Your task to perform on an android device: Is it going to rain today? Image 0: 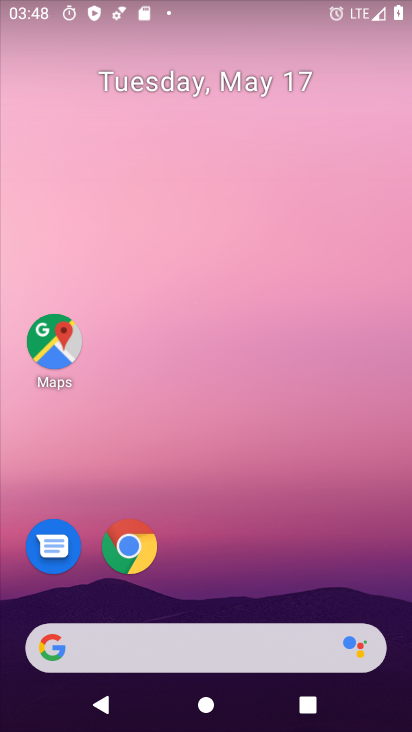
Step 0: press home button
Your task to perform on an android device: Is it going to rain today? Image 1: 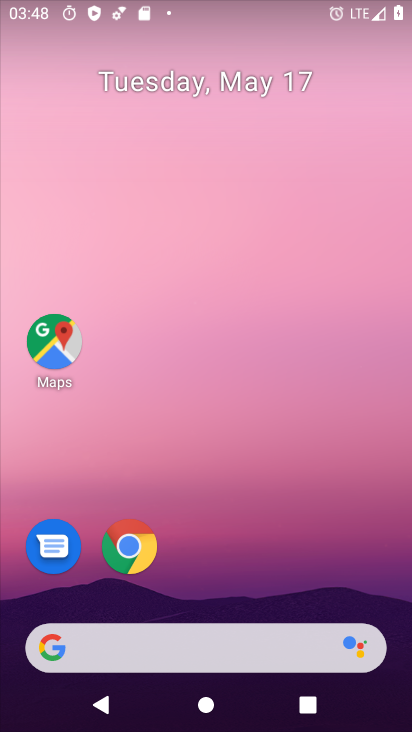
Step 1: click (121, 544)
Your task to perform on an android device: Is it going to rain today? Image 2: 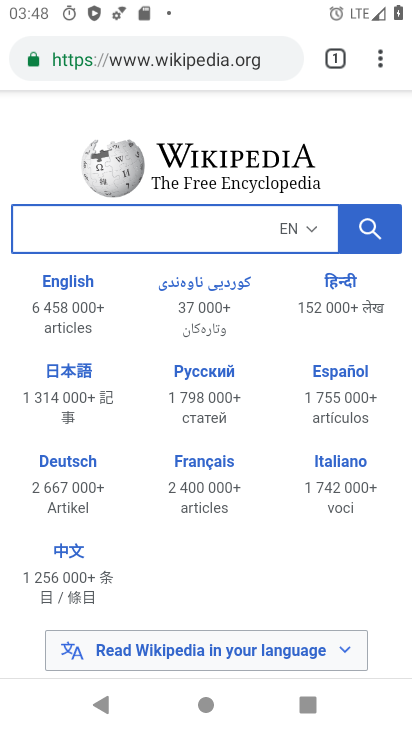
Step 2: click (197, 50)
Your task to perform on an android device: Is it going to rain today? Image 3: 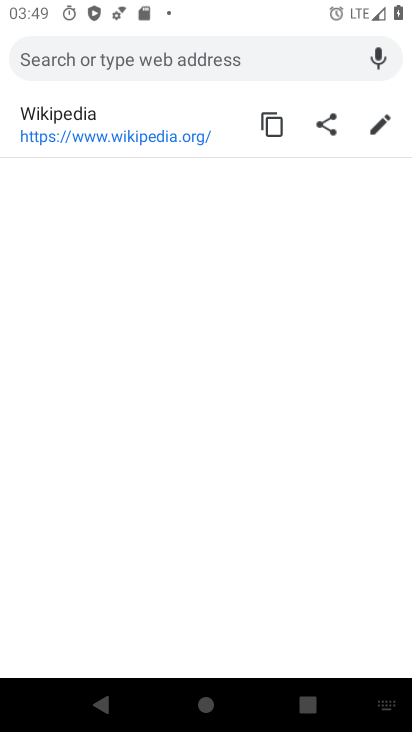
Step 3: type "Is it going to rain today?"
Your task to perform on an android device: Is it going to rain today? Image 4: 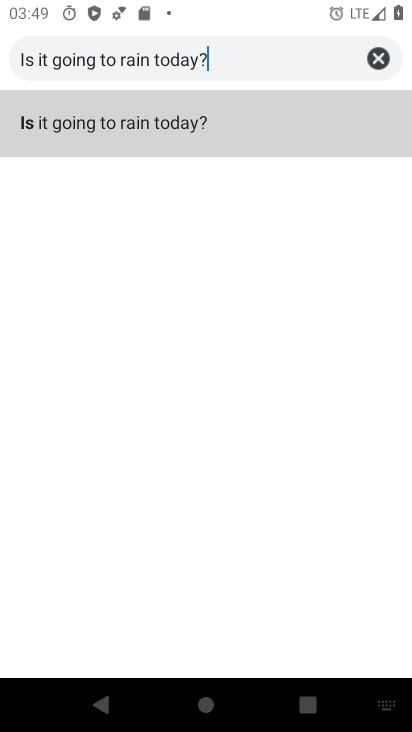
Step 4: click (166, 123)
Your task to perform on an android device: Is it going to rain today? Image 5: 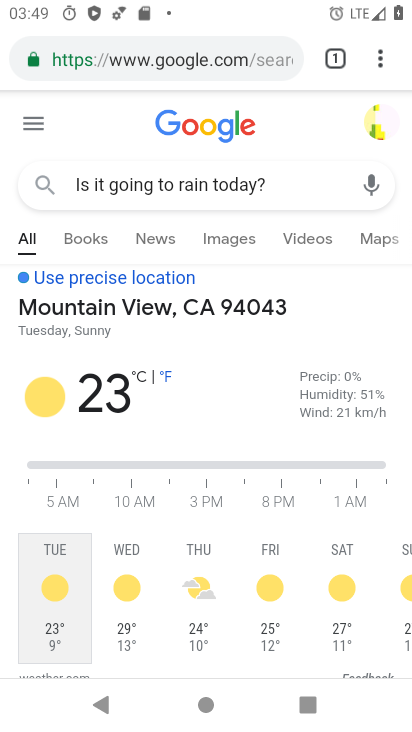
Step 5: task complete